Your task to perform on an android device: clear history in the chrome app Image 0: 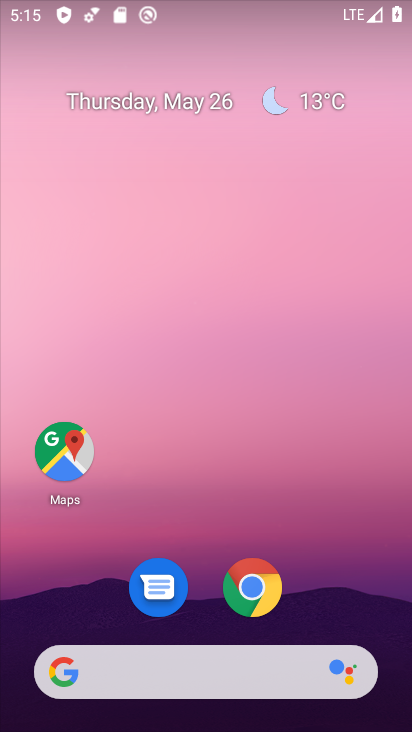
Step 0: click (246, 584)
Your task to perform on an android device: clear history in the chrome app Image 1: 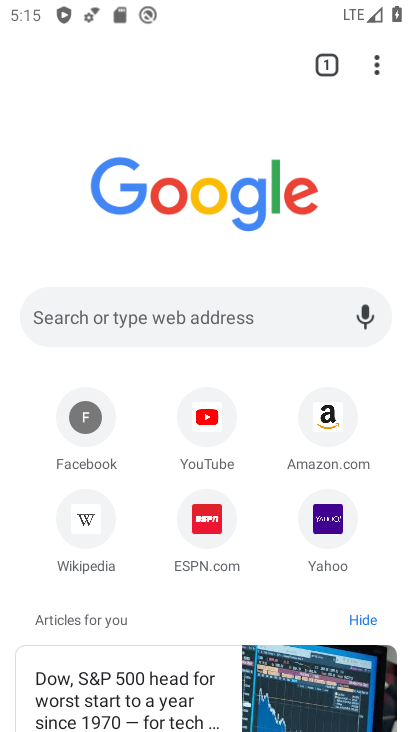
Step 1: click (376, 67)
Your task to perform on an android device: clear history in the chrome app Image 2: 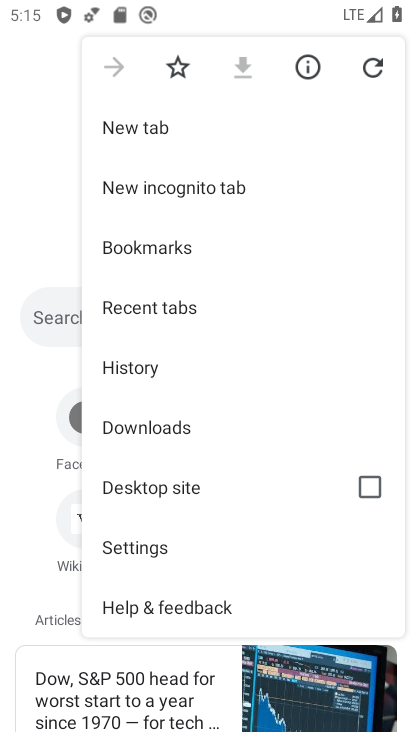
Step 2: click (137, 360)
Your task to perform on an android device: clear history in the chrome app Image 3: 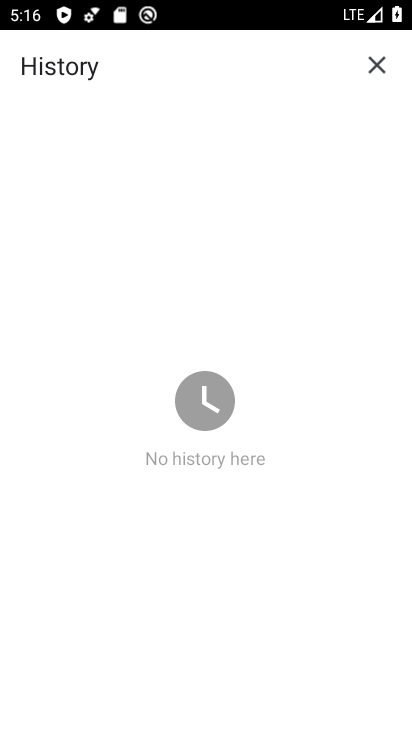
Step 3: task complete